Your task to perform on an android device: check battery use Image 0: 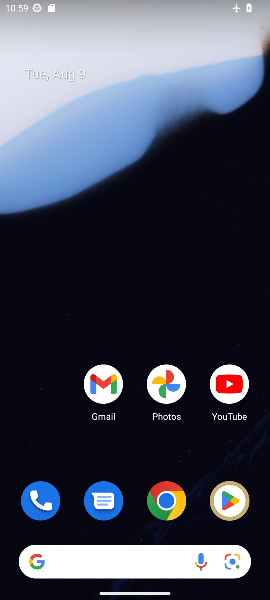
Step 0: drag from (122, 518) to (150, 141)
Your task to perform on an android device: check battery use Image 1: 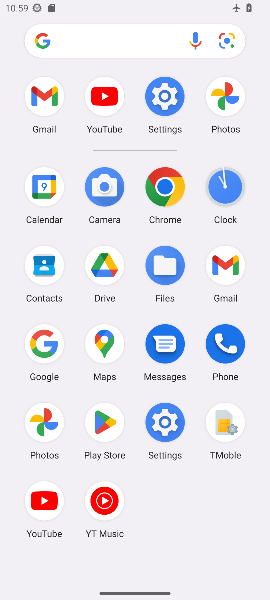
Step 1: click (164, 421)
Your task to perform on an android device: check battery use Image 2: 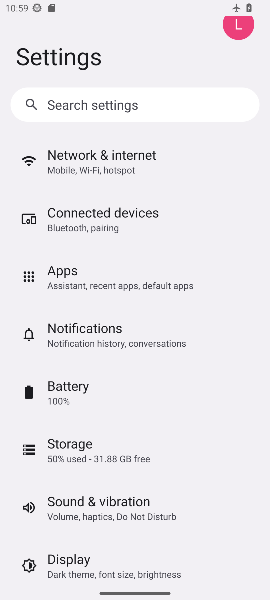
Step 2: click (97, 388)
Your task to perform on an android device: check battery use Image 3: 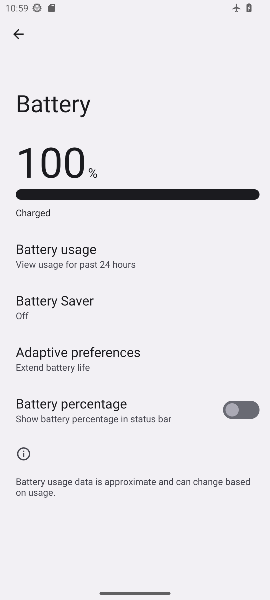
Step 3: task complete